Your task to perform on an android device: turn on the 24-hour format for clock Image 0: 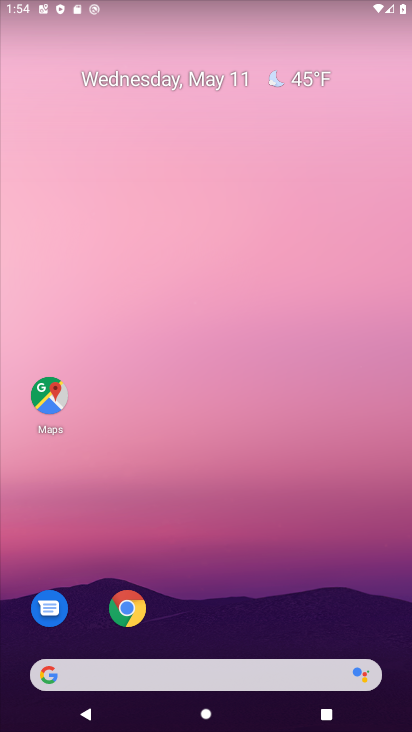
Step 0: press home button
Your task to perform on an android device: turn on the 24-hour format for clock Image 1: 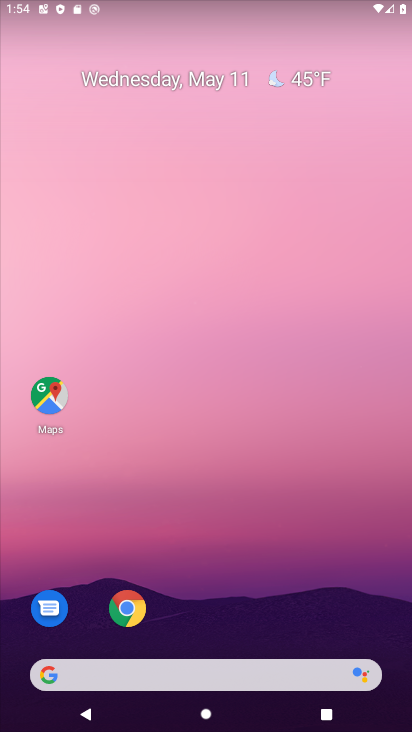
Step 1: drag from (213, 630) to (269, 42)
Your task to perform on an android device: turn on the 24-hour format for clock Image 2: 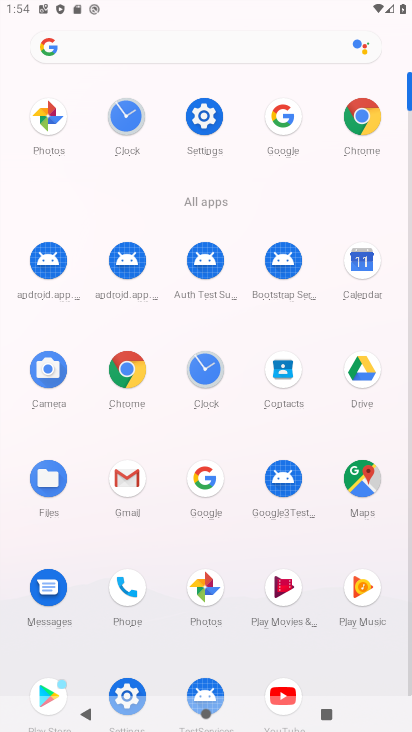
Step 2: click (200, 360)
Your task to perform on an android device: turn on the 24-hour format for clock Image 3: 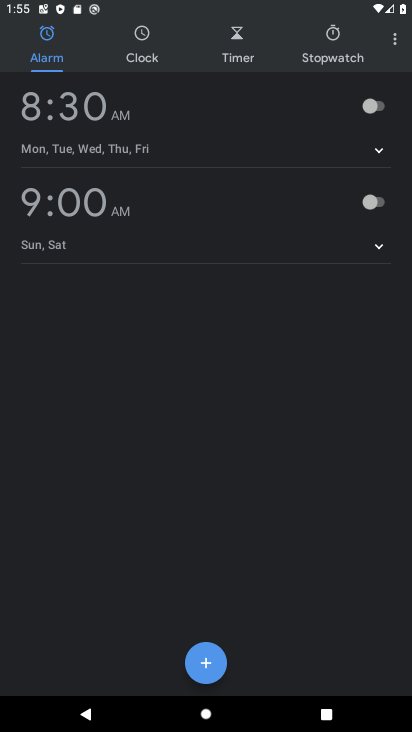
Step 3: click (390, 35)
Your task to perform on an android device: turn on the 24-hour format for clock Image 4: 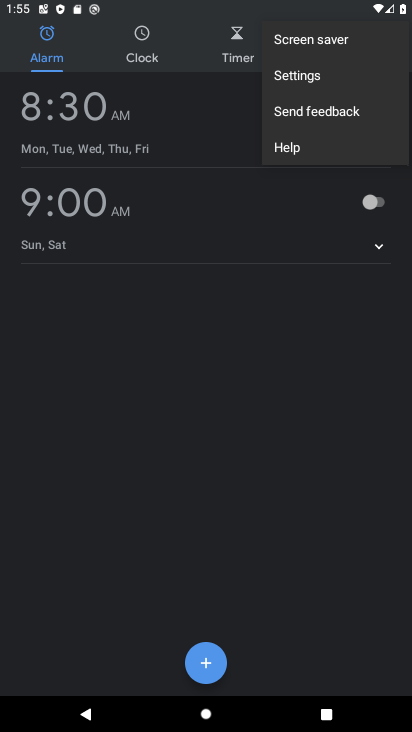
Step 4: click (328, 70)
Your task to perform on an android device: turn on the 24-hour format for clock Image 5: 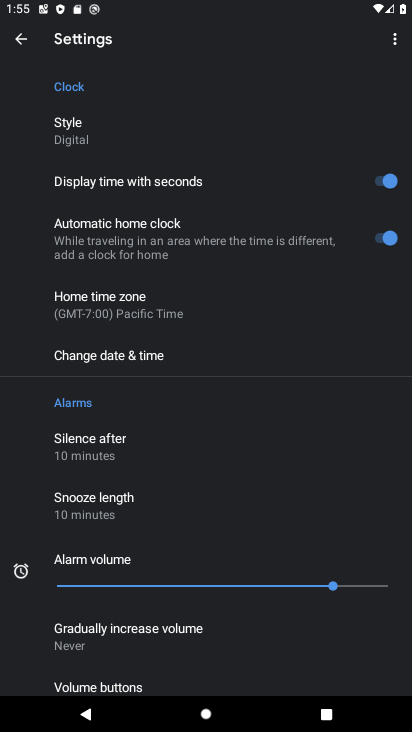
Step 5: click (184, 357)
Your task to perform on an android device: turn on the 24-hour format for clock Image 6: 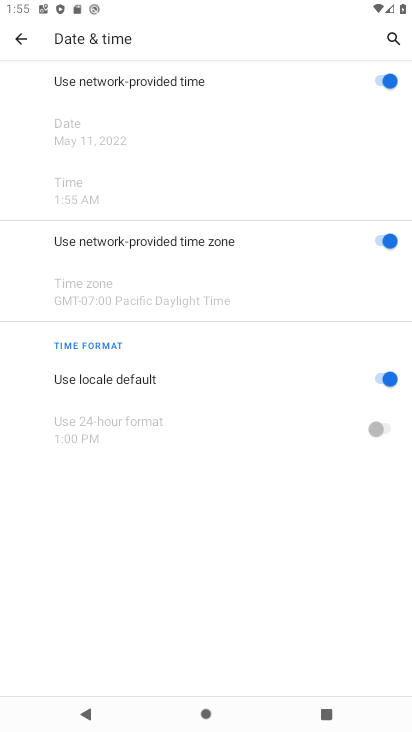
Step 6: click (377, 372)
Your task to perform on an android device: turn on the 24-hour format for clock Image 7: 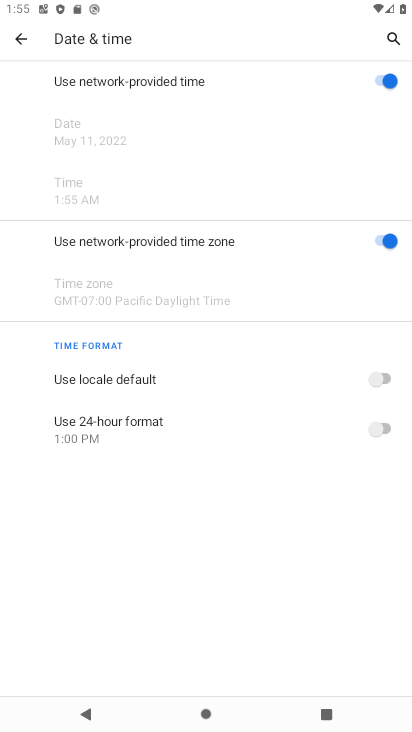
Step 7: click (381, 427)
Your task to perform on an android device: turn on the 24-hour format for clock Image 8: 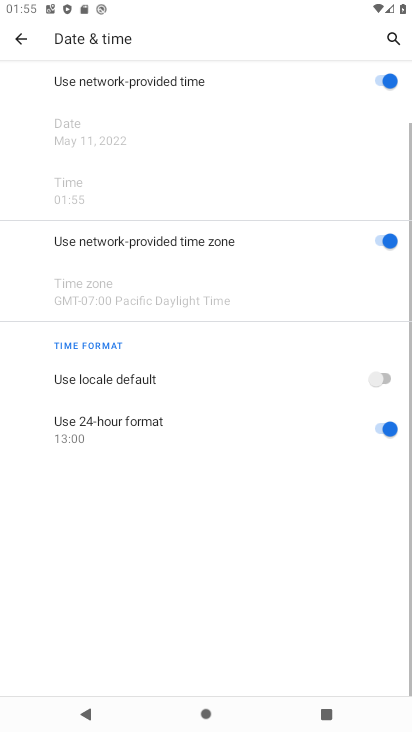
Step 8: task complete